Your task to perform on an android device: Go to privacy settings Image 0: 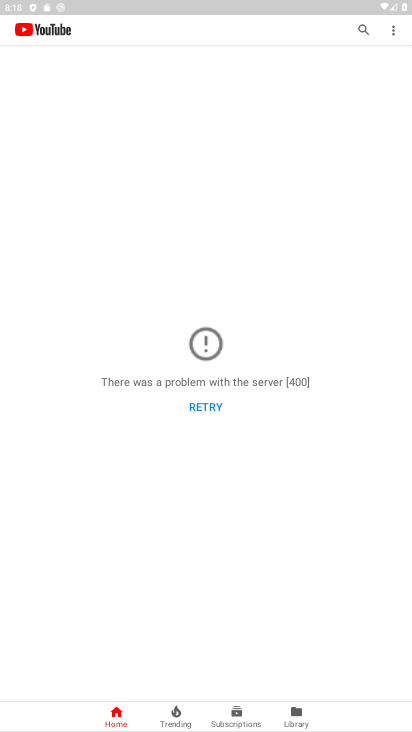
Step 0: press home button
Your task to perform on an android device: Go to privacy settings Image 1: 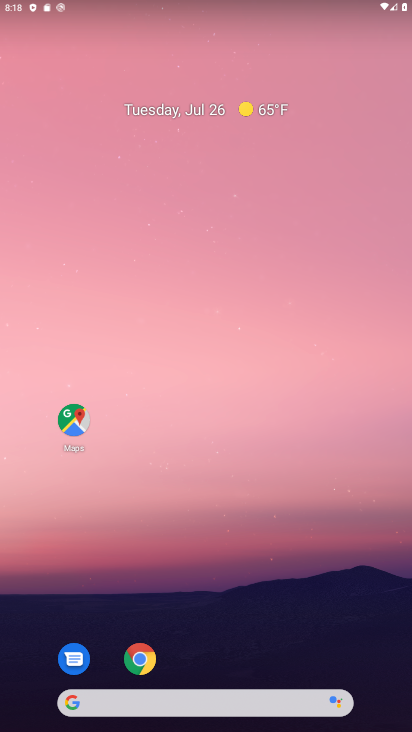
Step 1: drag from (170, 459) to (171, 60)
Your task to perform on an android device: Go to privacy settings Image 2: 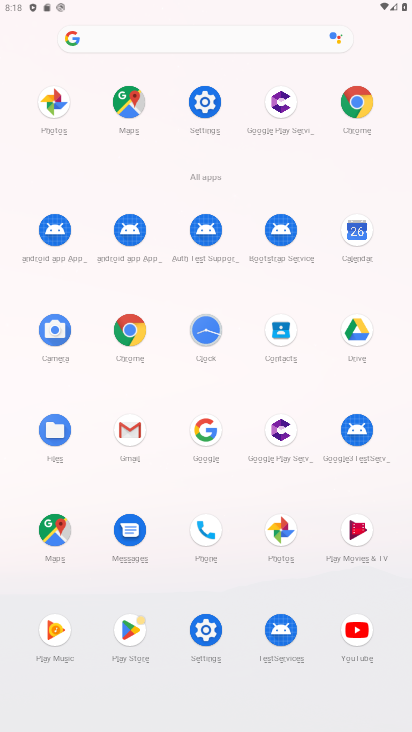
Step 2: click (201, 111)
Your task to perform on an android device: Go to privacy settings Image 3: 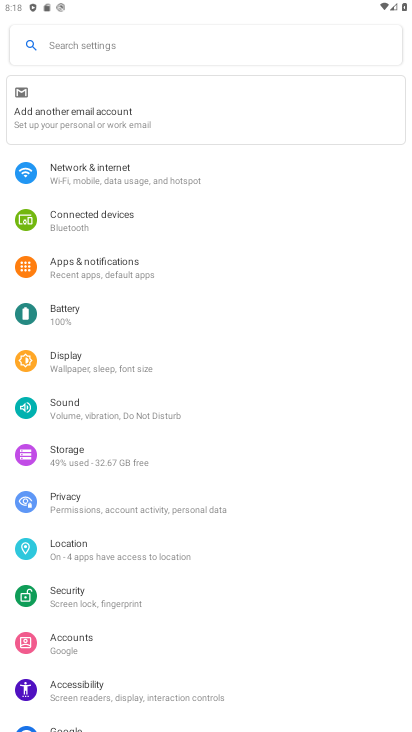
Step 3: click (63, 494)
Your task to perform on an android device: Go to privacy settings Image 4: 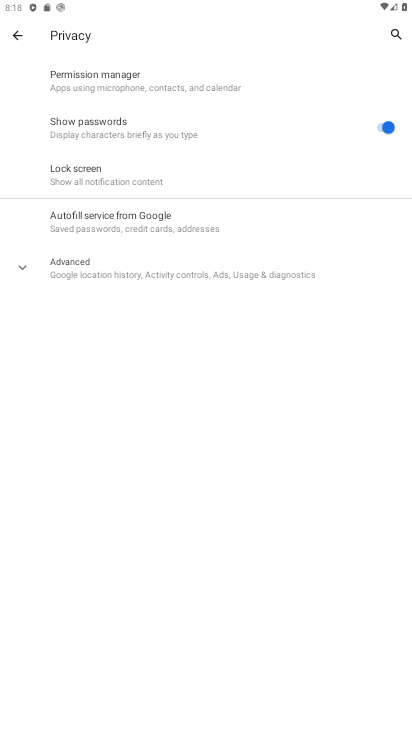
Step 4: task complete